Your task to perform on an android device: Search for sushi restaurants on Maps Image 0: 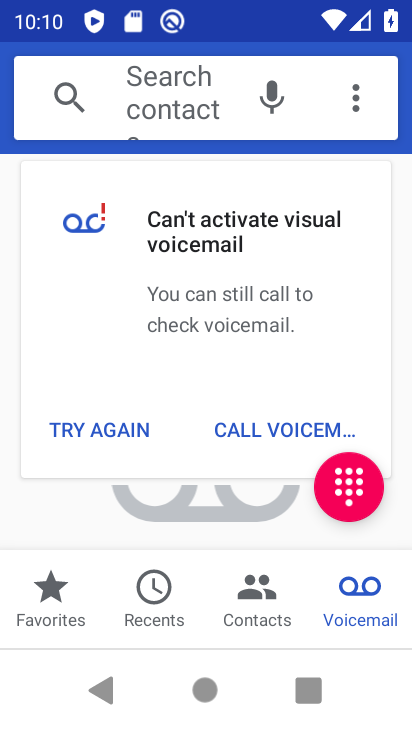
Step 0: press home button
Your task to perform on an android device: Search for sushi restaurants on Maps Image 1: 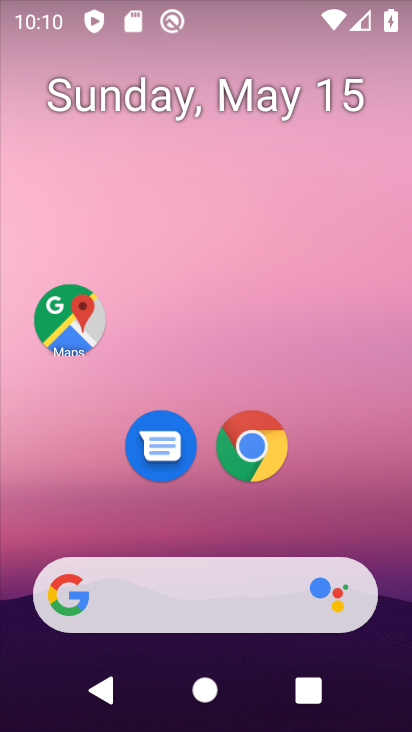
Step 1: click (60, 331)
Your task to perform on an android device: Search for sushi restaurants on Maps Image 2: 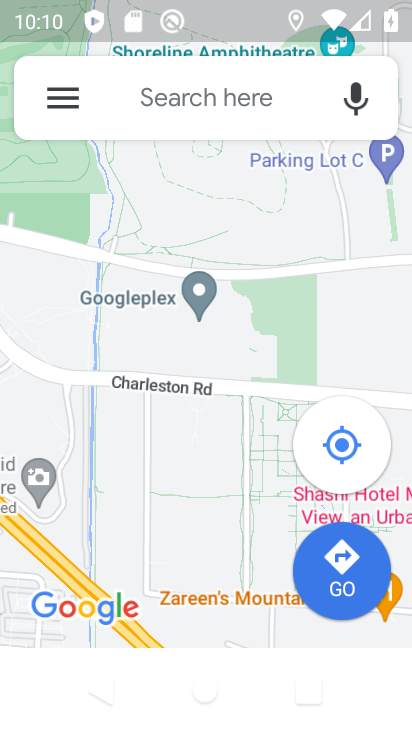
Step 2: click (175, 101)
Your task to perform on an android device: Search for sushi restaurants on Maps Image 3: 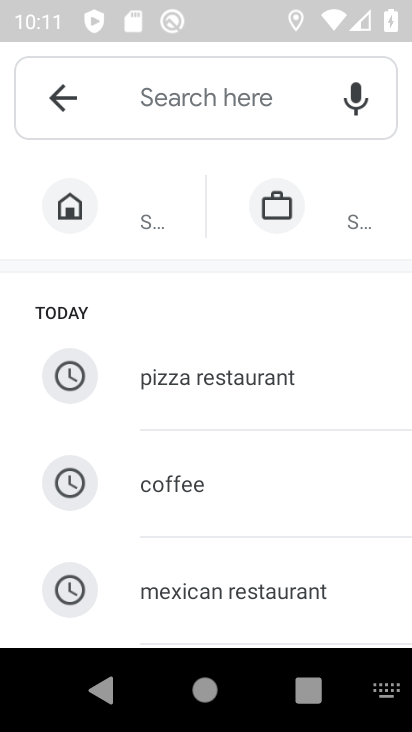
Step 3: drag from (224, 565) to (233, 262)
Your task to perform on an android device: Search for sushi restaurants on Maps Image 4: 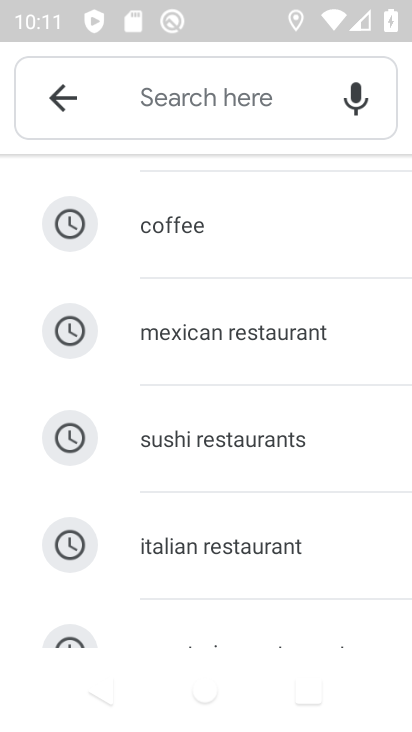
Step 4: drag from (198, 609) to (197, 308)
Your task to perform on an android device: Search for sushi restaurants on Maps Image 5: 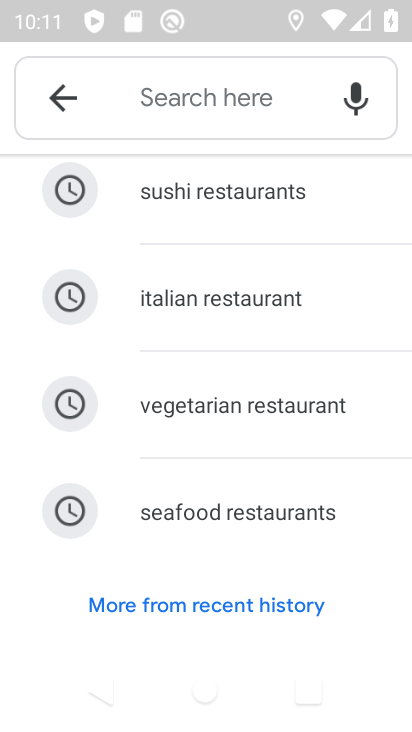
Step 5: drag from (210, 552) to (228, 504)
Your task to perform on an android device: Search for sushi restaurants on Maps Image 6: 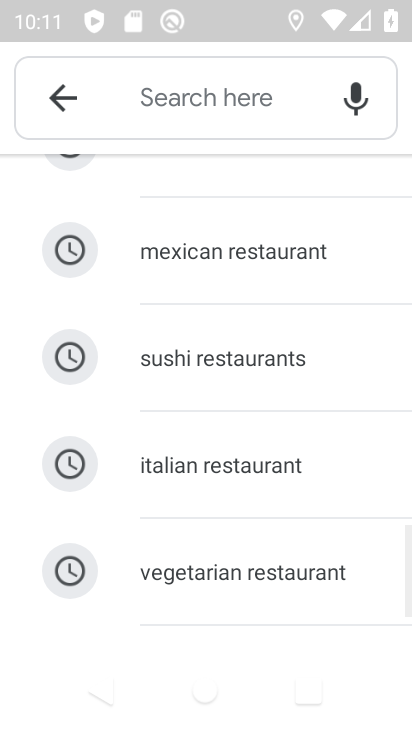
Step 6: click (202, 356)
Your task to perform on an android device: Search for sushi restaurants on Maps Image 7: 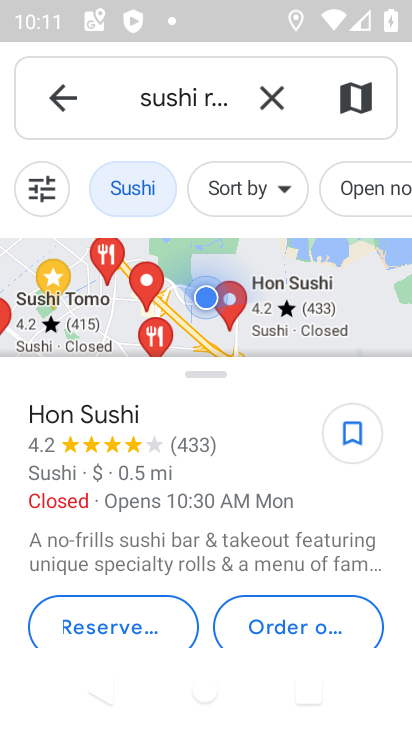
Step 7: task complete